Your task to perform on an android device: Do I have any events today? Image 0: 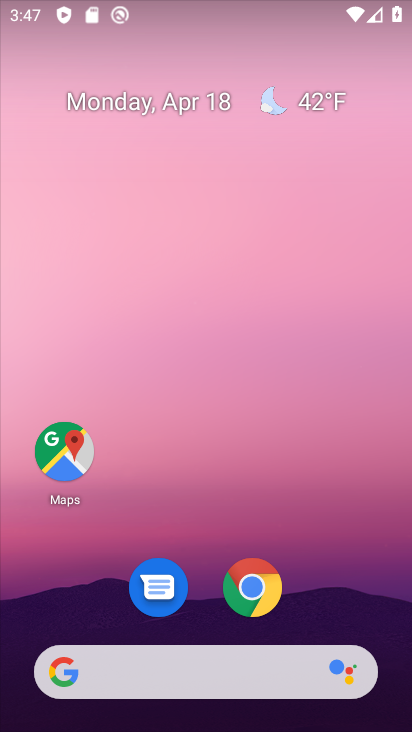
Step 0: drag from (217, 396) to (187, 61)
Your task to perform on an android device: Do I have any events today? Image 1: 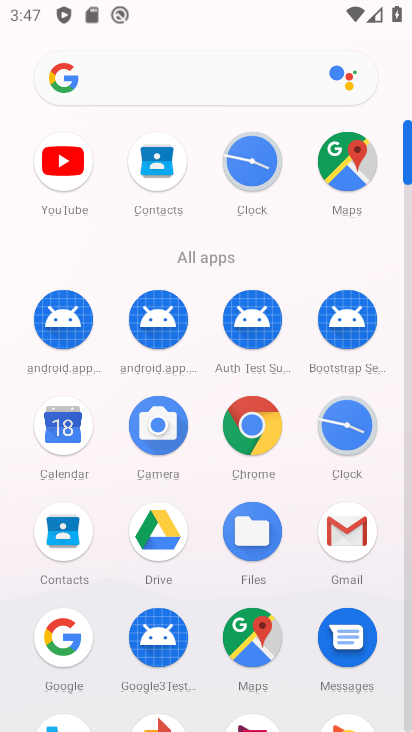
Step 1: click (77, 433)
Your task to perform on an android device: Do I have any events today? Image 2: 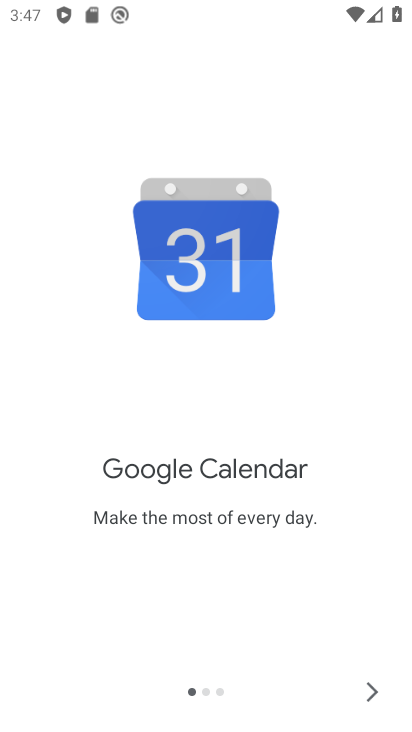
Step 2: click (373, 685)
Your task to perform on an android device: Do I have any events today? Image 3: 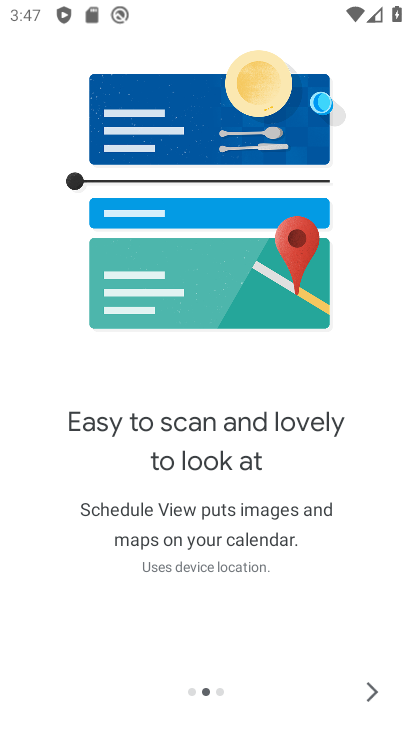
Step 3: click (362, 683)
Your task to perform on an android device: Do I have any events today? Image 4: 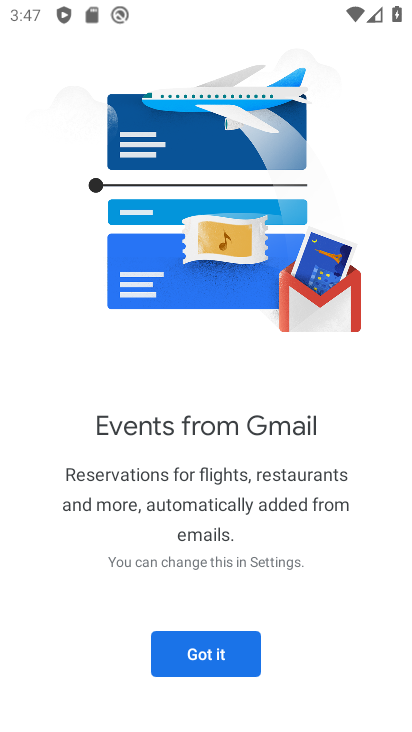
Step 4: click (236, 654)
Your task to perform on an android device: Do I have any events today? Image 5: 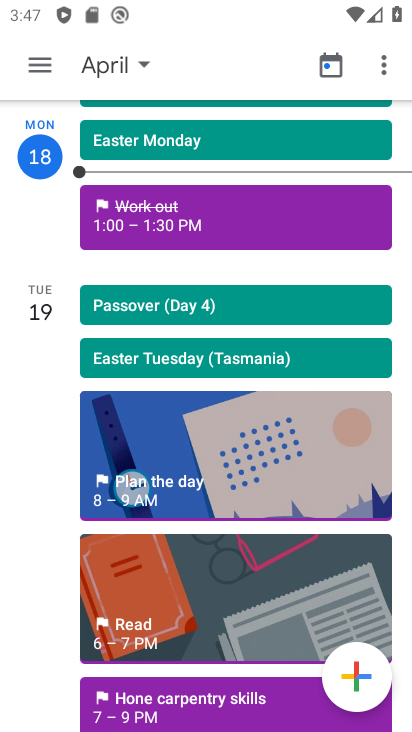
Step 5: task complete